Your task to perform on an android device: turn on translation in the chrome app Image 0: 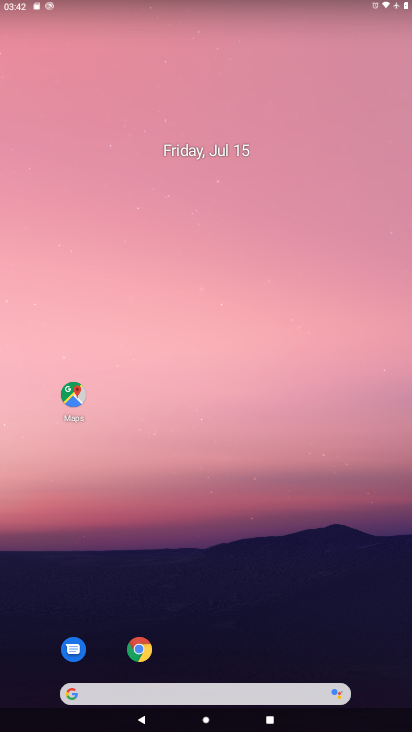
Step 0: click (139, 650)
Your task to perform on an android device: turn on translation in the chrome app Image 1: 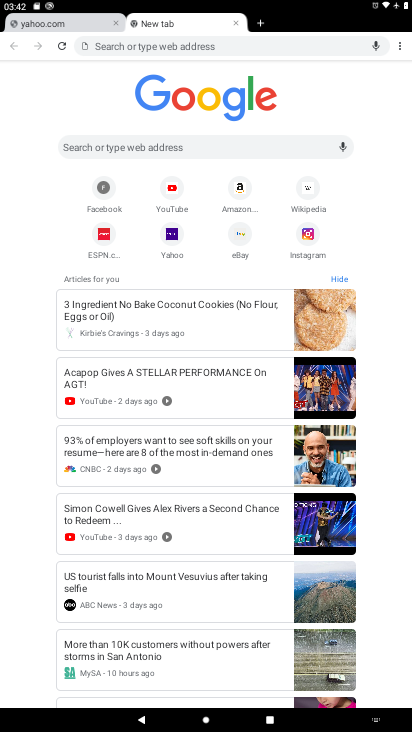
Step 1: click (396, 49)
Your task to perform on an android device: turn on translation in the chrome app Image 2: 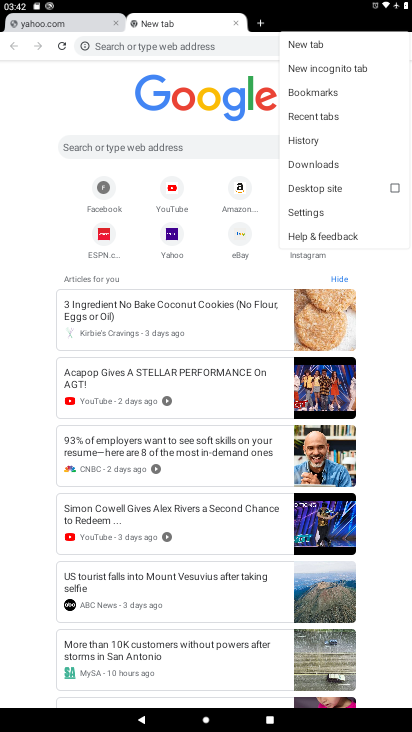
Step 2: click (303, 212)
Your task to perform on an android device: turn on translation in the chrome app Image 3: 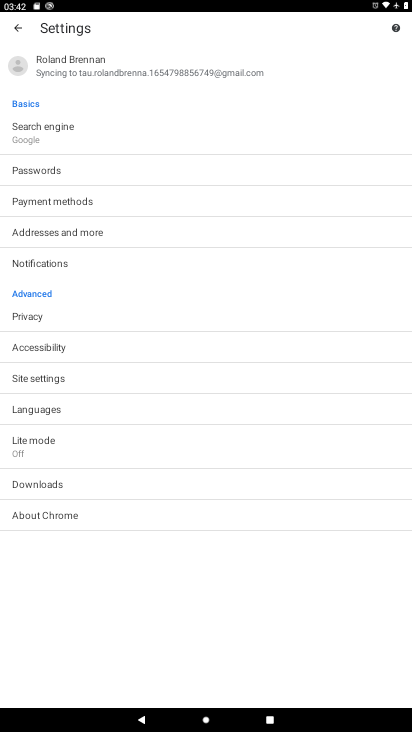
Step 3: click (38, 411)
Your task to perform on an android device: turn on translation in the chrome app Image 4: 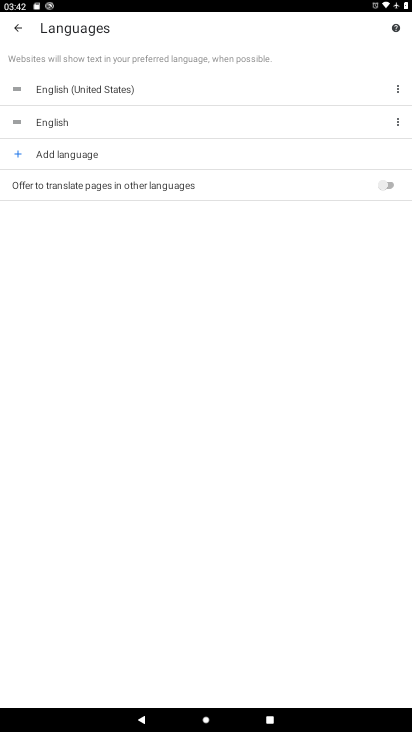
Step 4: click (390, 182)
Your task to perform on an android device: turn on translation in the chrome app Image 5: 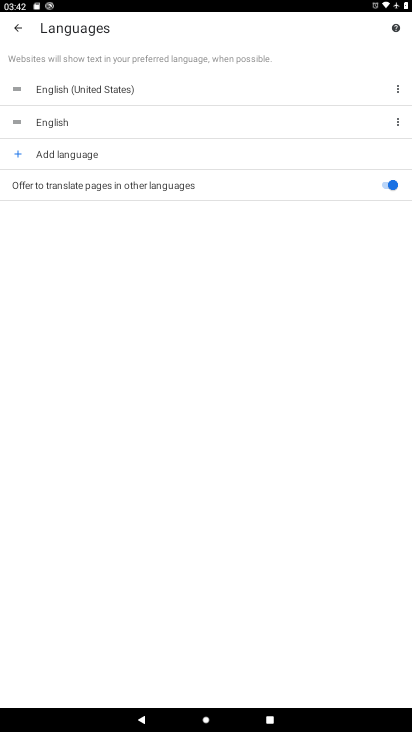
Step 5: task complete